Your task to perform on an android device: open a bookmark in the chrome app Image 0: 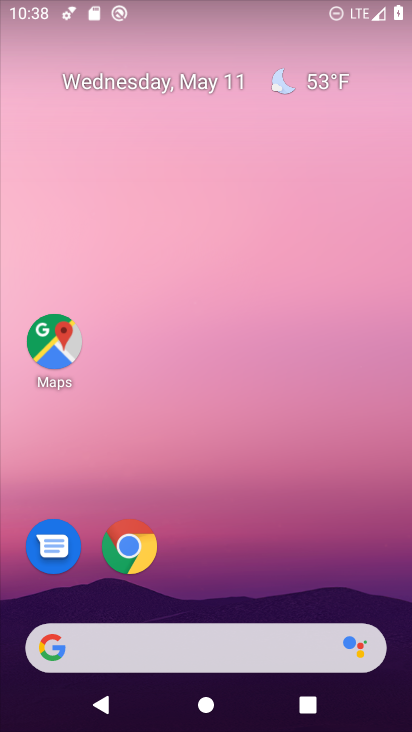
Step 0: drag from (391, 519) to (295, 13)
Your task to perform on an android device: open a bookmark in the chrome app Image 1: 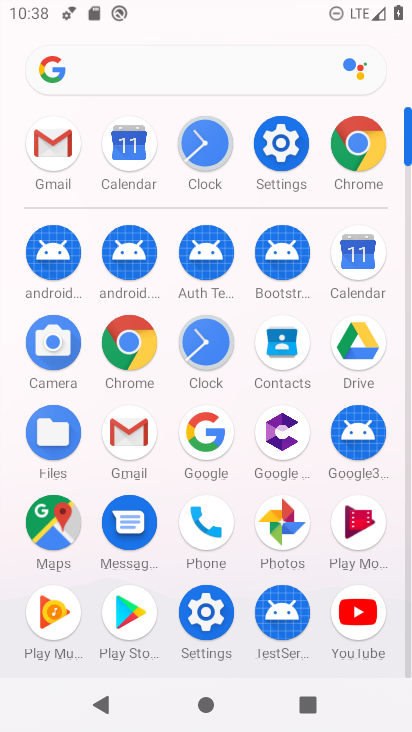
Step 1: click (364, 153)
Your task to perform on an android device: open a bookmark in the chrome app Image 2: 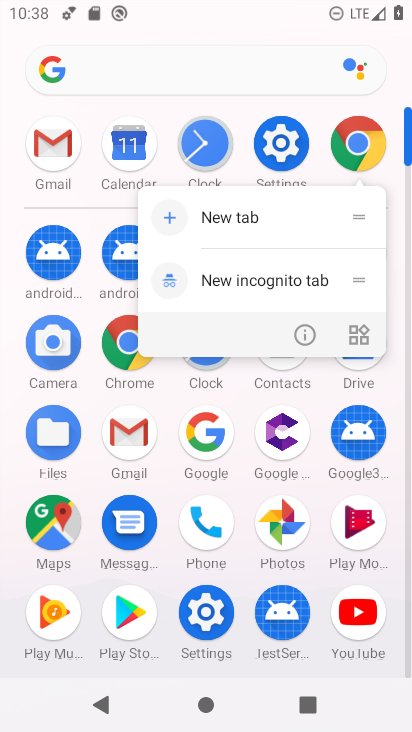
Step 2: click (364, 153)
Your task to perform on an android device: open a bookmark in the chrome app Image 3: 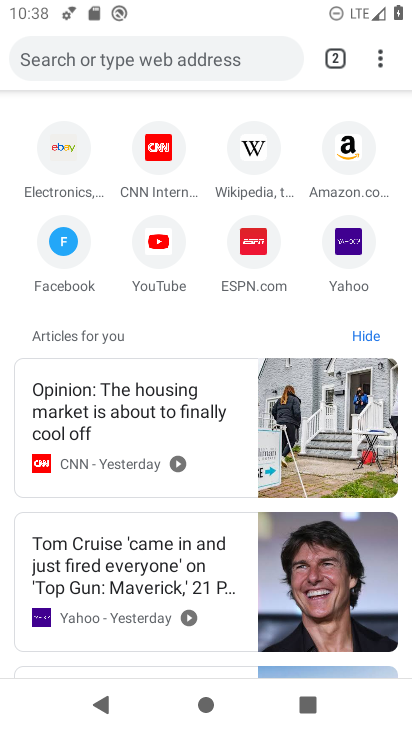
Step 3: click (382, 53)
Your task to perform on an android device: open a bookmark in the chrome app Image 4: 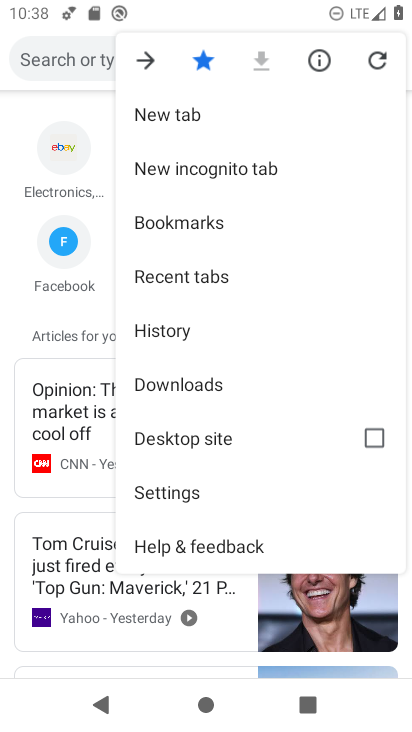
Step 4: click (184, 224)
Your task to perform on an android device: open a bookmark in the chrome app Image 5: 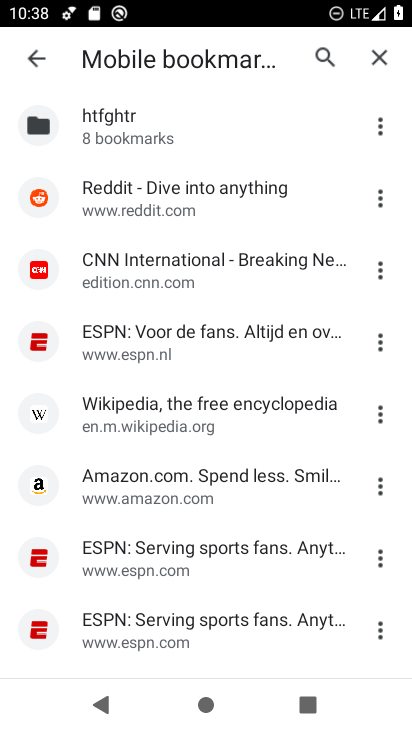
Step 5: task complete